Your task to perform on an android device: remove spam from my inbox in the gmail app Image 0: 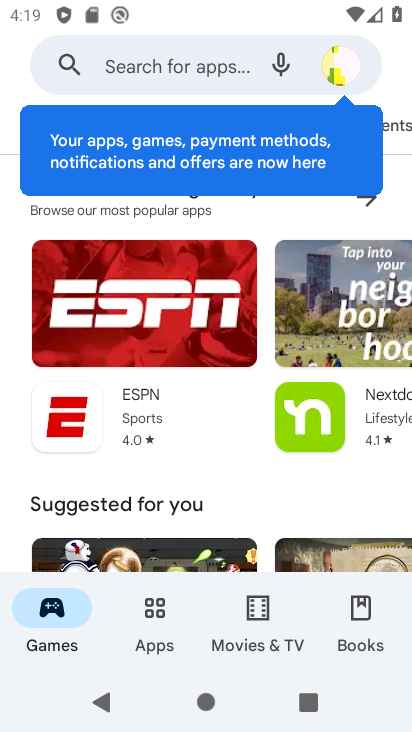
Step 0: press home button
Your task to perform on an android device: remove spam from my inbox in the gmail app Image 1: 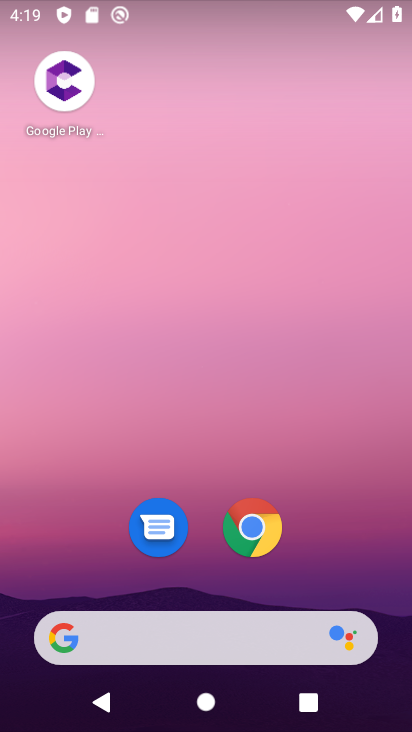
Step 1: drag from (188, 566) to (167, 69)
Your task to perform on an android device: remove spam from my inbox in the gmail app Image 2: 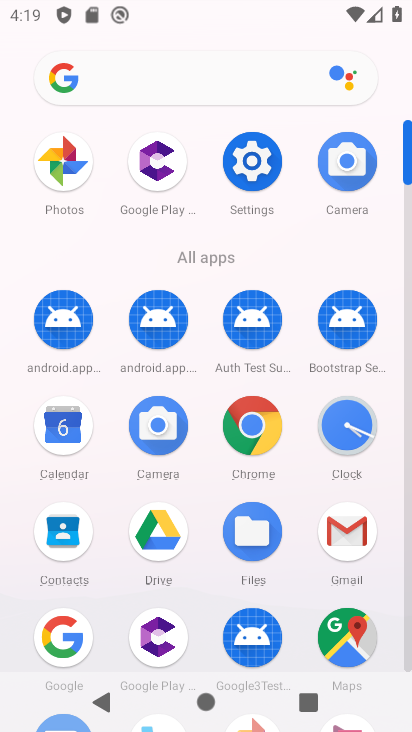
Step 2: click (354, 529)
Your task to perform on an android device: remove spam from my inbox in the gmail app Image 3: 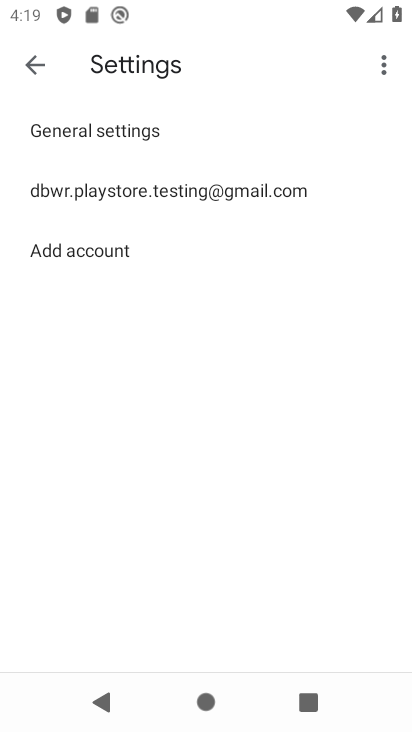
Step 3: click (30, 54)
Your task to perform on an android device: remove spam from my inbox in the gmail app Image 4: 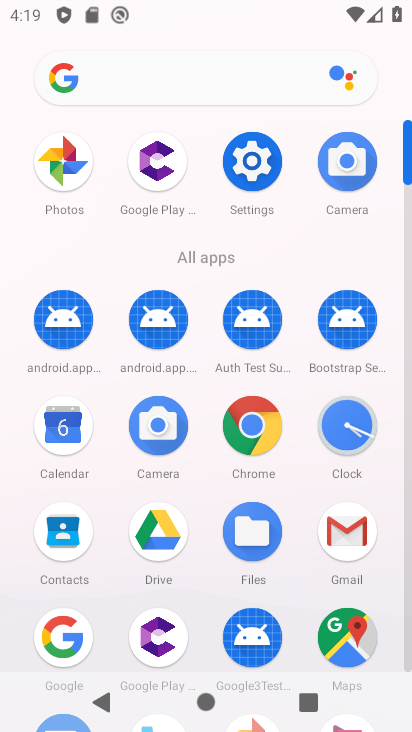
Step 4: click (334, 535)
Your task to perform on an android device: remove spam from my inbox in the gmail app Image 5: 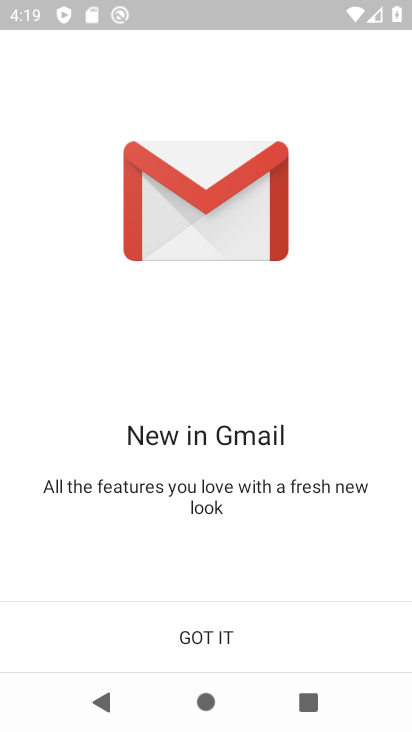
Step 5: click (196, 645)
Your task to perform on an android device: remove spam from my inbox in the gmail app Image 6: 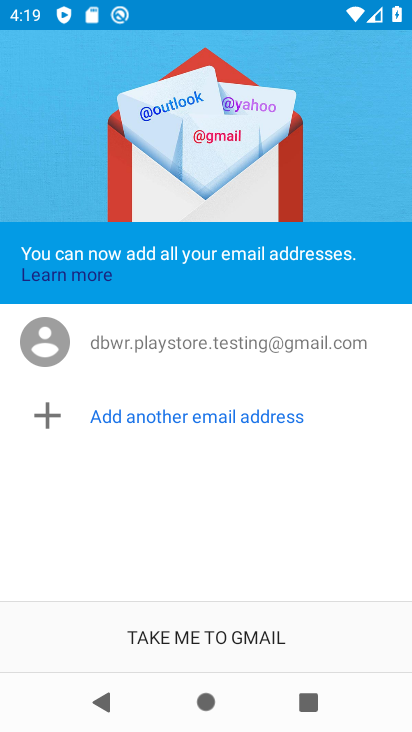
Step 6: click (206, 629)
Your task to perform on an android device: remove spam from my inbox in the gmail app Image 7: 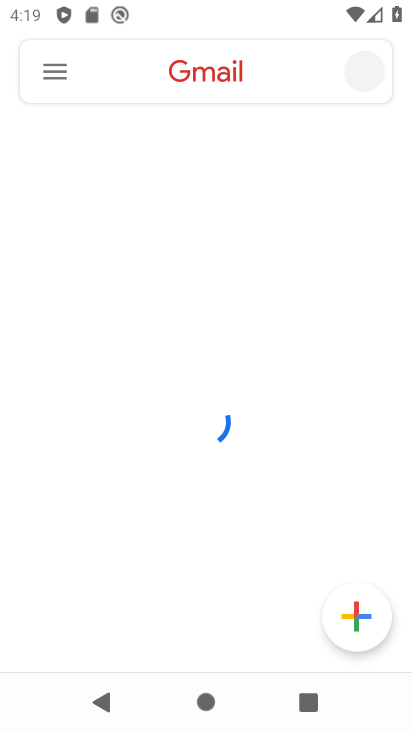
Step 7: click (43, 71)
Your task to perform on an android device: remove spam from my inbox in the gmail app Image 8: 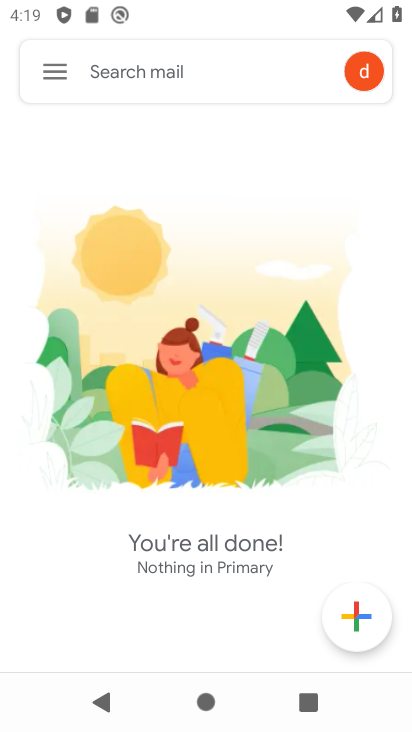
Step 8: click (48, 79)
Your task to perform on an android device: remove spam from my inbox in the gmail app Image 9: 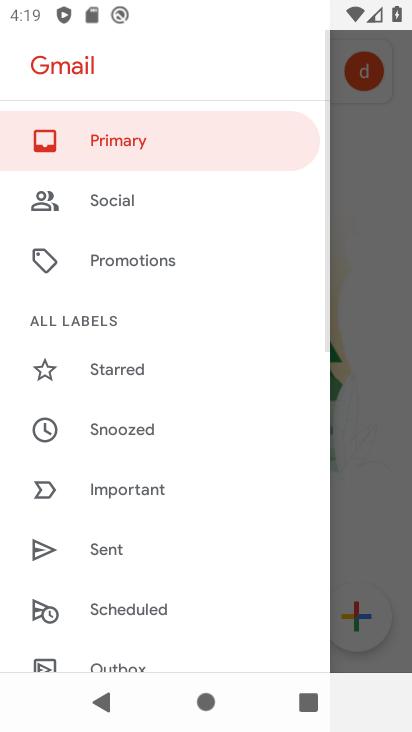
Step 9: drag from (116, 563) to (112, 230)
Your task to perform on an android device: remove spam from my inbox in the gmail app Image 10: 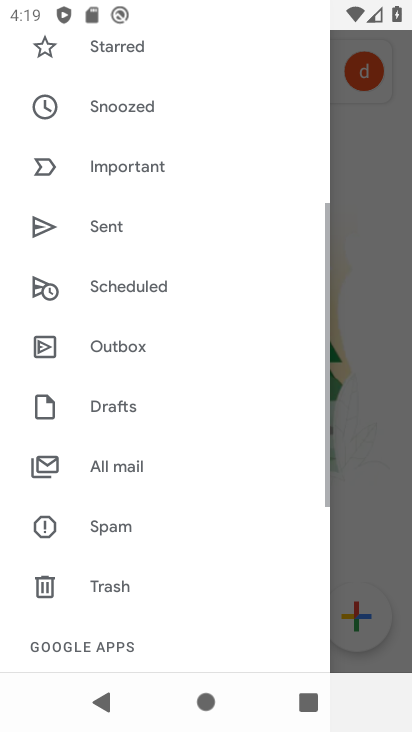
Step 10: drag from (104, 589) to (108, 306)
Your task to perform on an android device: remove spam from my inbox in the gmail app Image 11: 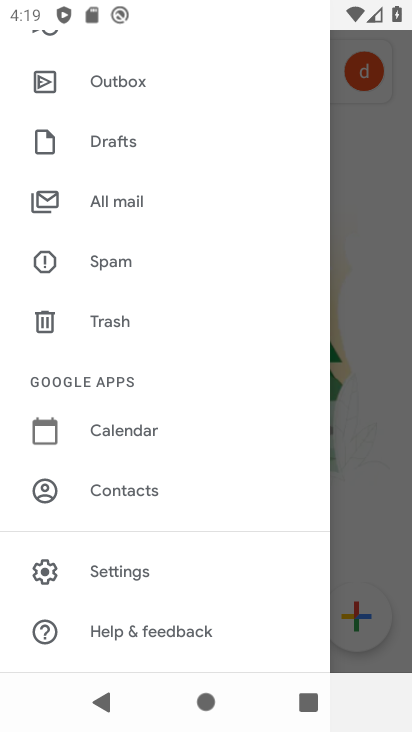
Step 11: click (119, 266)
Your task to perform on an android device: remove spam from my inbox in the gmail app Image 12: 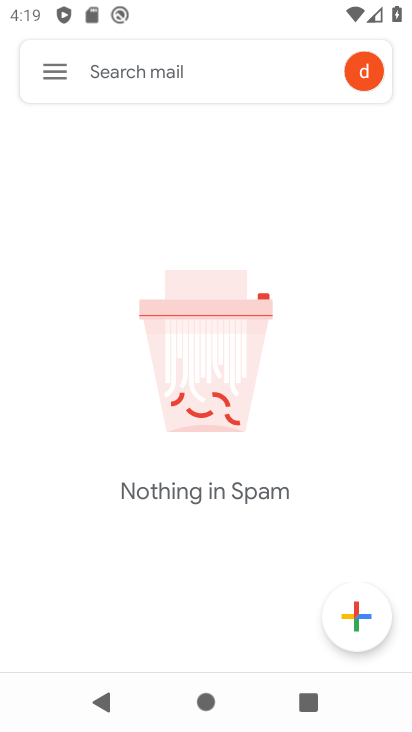
Step 12: task complete